Your task to perform on an android device: change your default location settings in chrome Image 0: 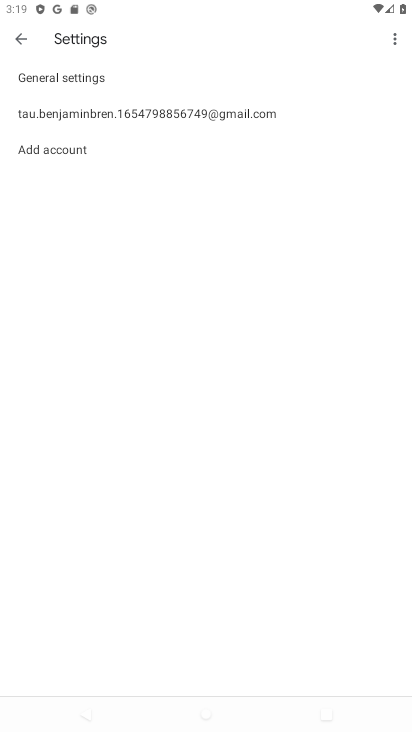
Step 0: press home button
Your task to perform on an android device: change your default location settings in chrome Image 1: 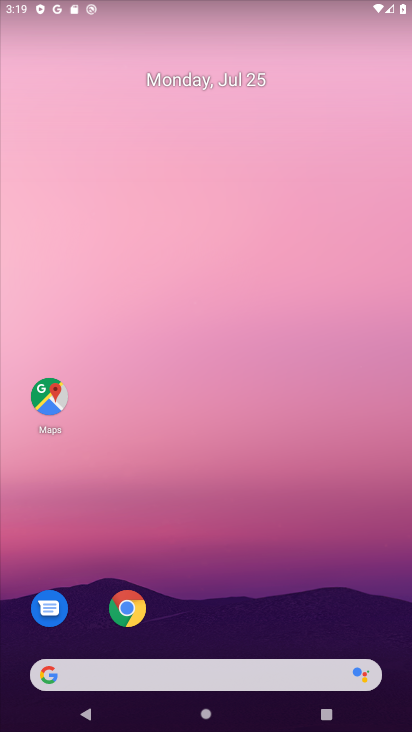
Step 1: drag from (46, 587) to (338, 122)
Your task to perform on an android device: change your default location settings in chrome Image 2: 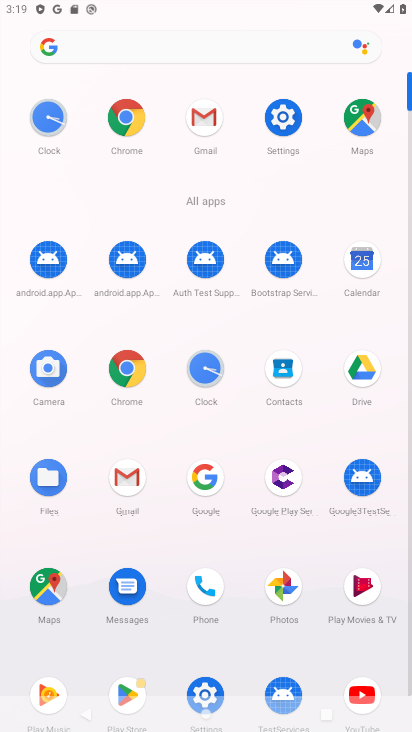
Step 2: click (117, 376)
Your task to perform on an android device: change your default location settings in chrome Image 3: 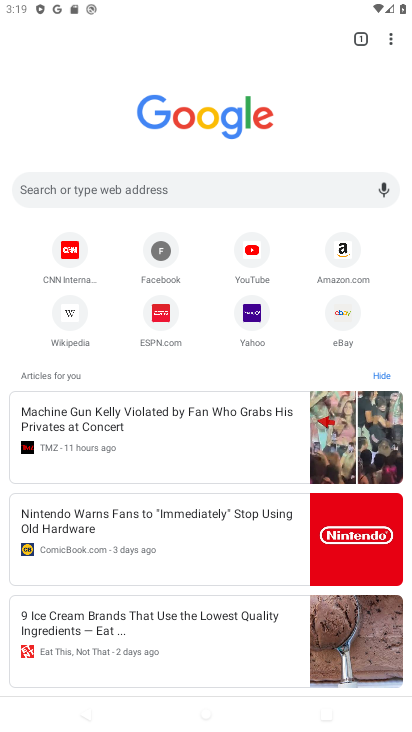
Step 3: click (391, 40)
Your task to perform on an android device: change your default location settings in chrome Image 4: 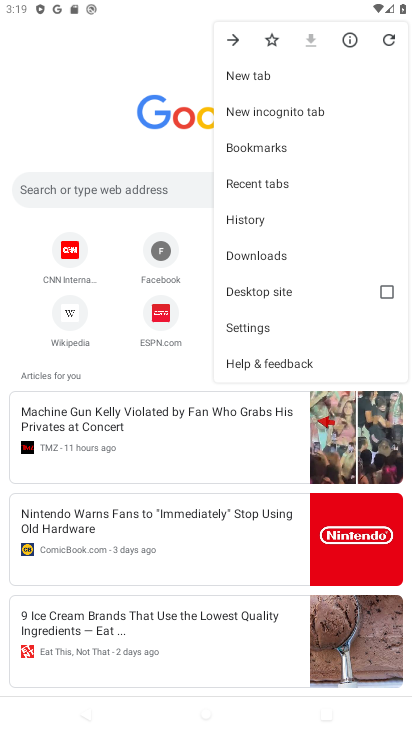
Step 4: click (262, 323)
Your task to perform on an android device: change your default location settings in chrome Image 5: 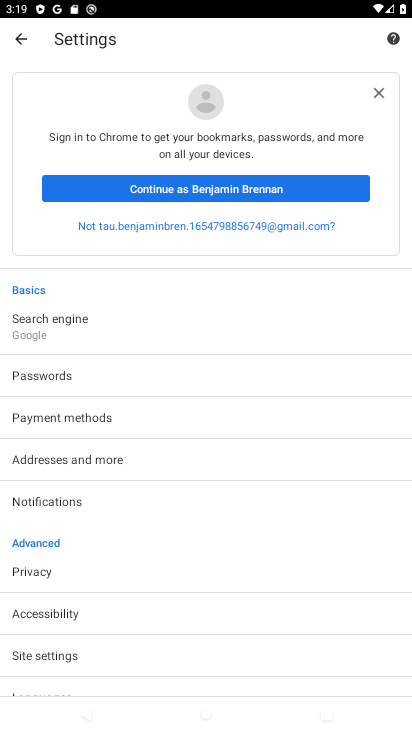
Step 5: click (32, 656)
Your task to perform on an android device: change your default location settings in chrome Image 6: 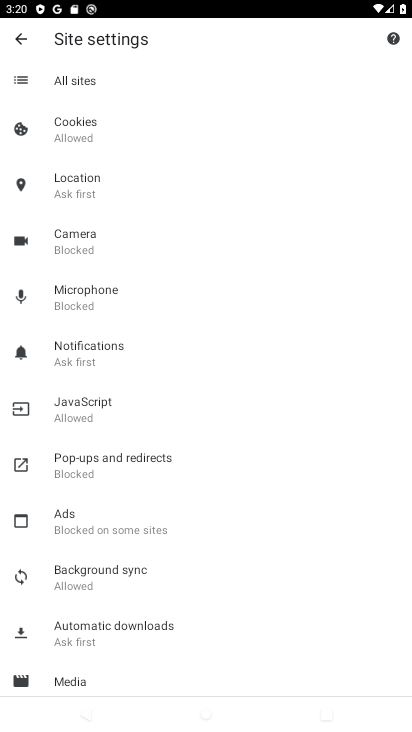
Step 6: click (153, 171)
Your task to perform on an android device: change your default location settings in chrome Image 7: 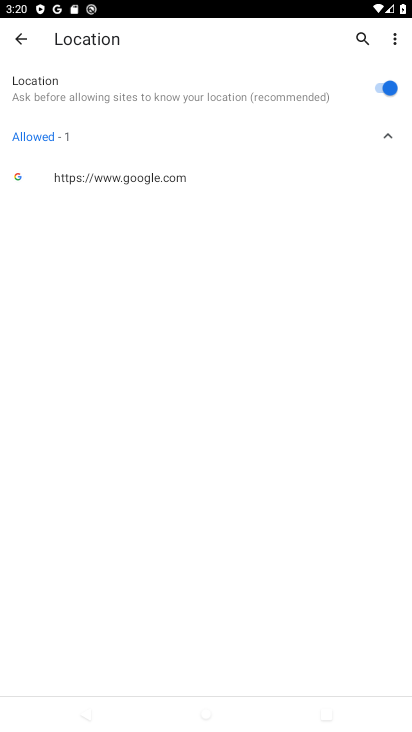
Step 7: click (391, 84)
Your task to perform on an android device: change your default location settings in chrome Image 8: 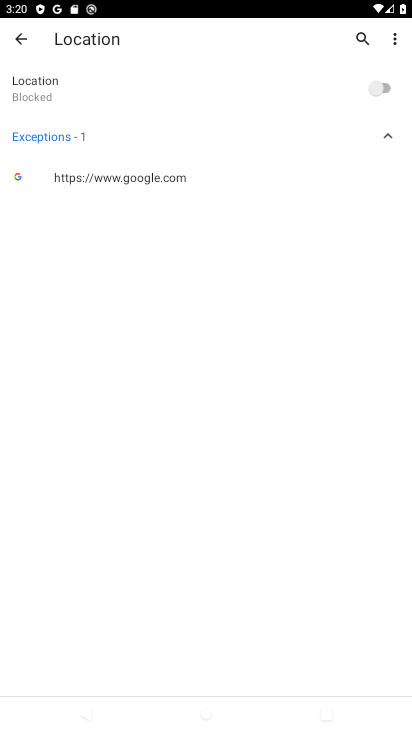
Step 8: task complete